Your task to perform on an android device: toggle pop-ups in chrome Image 0: 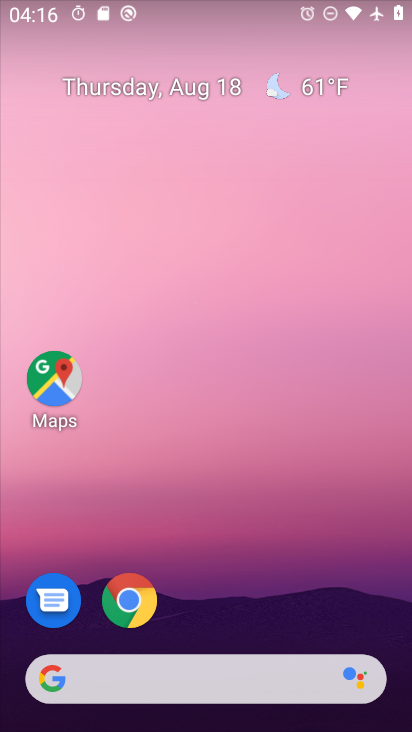
Step 0: click (140, 609)
Your task to perform on an android device: toggle pop-ups in chrome Image 1: 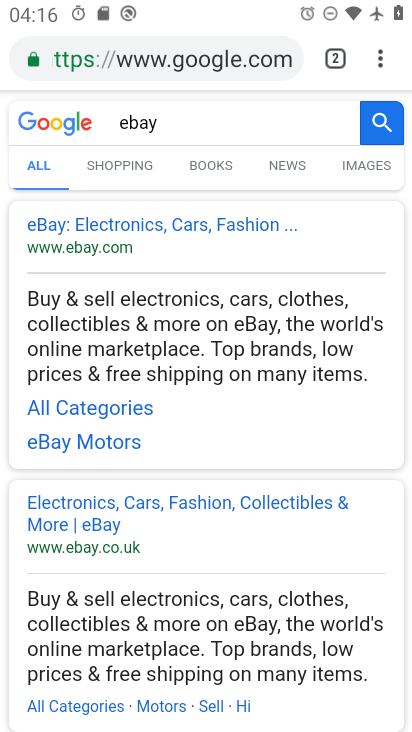
Step 1: drag from (380, 59) to (183, 653)
Your task to perform on an android device: toggle pop-ups in chrome Image 2: 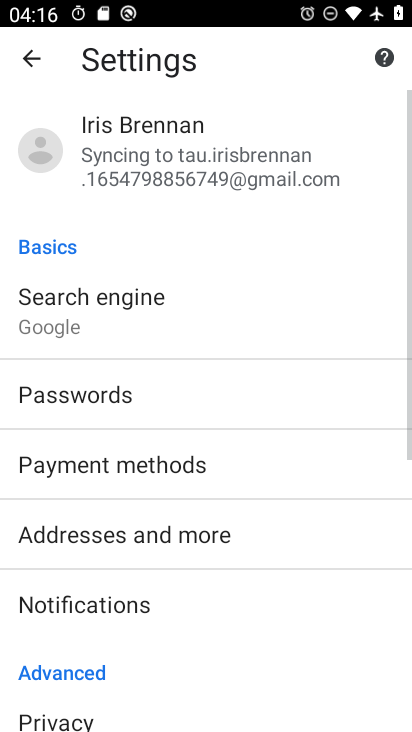
Step 2: drag from (228, 644) to (290, 110)
Your task to perform on an android device: toggle pop-ups in chrome Image 3: 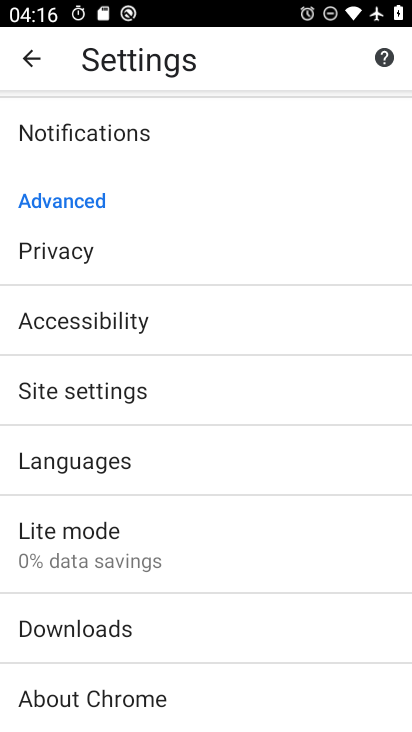
Step 3: click (78, 393)
Your task to perform on an android device: toggle pop-ups in chrome Image 4: 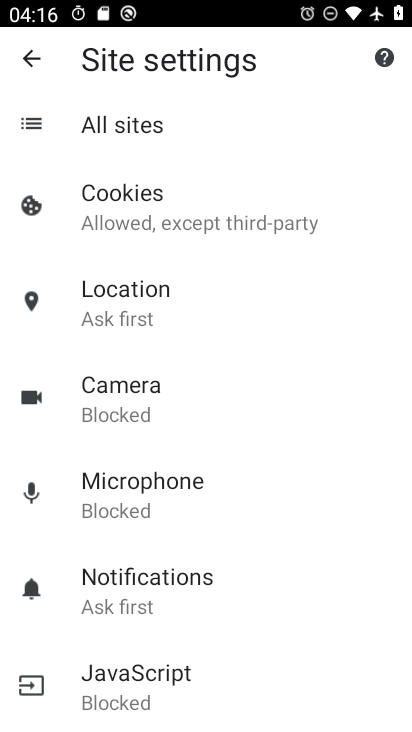
Step 4: drag from (326, 647) to (354, 71)
Your task to perform on an android device: toggle pop-ups in chrome Image 5: 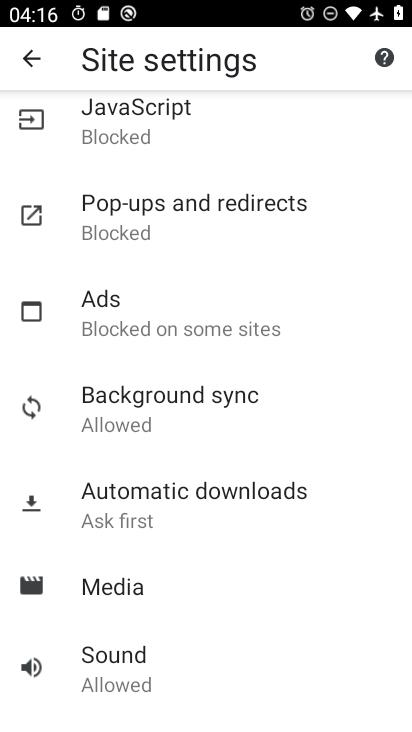
Step 5: click (156, 209)
Your task to perform on an android device: toggle pop-ups in chrome Image 6: 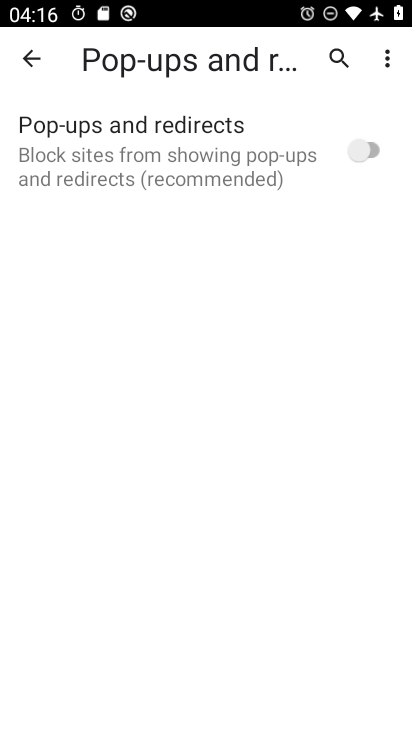
Step 6: click (369, 149)
Your task to perform on an android device: toggle pop-ups in chrome Image 7: 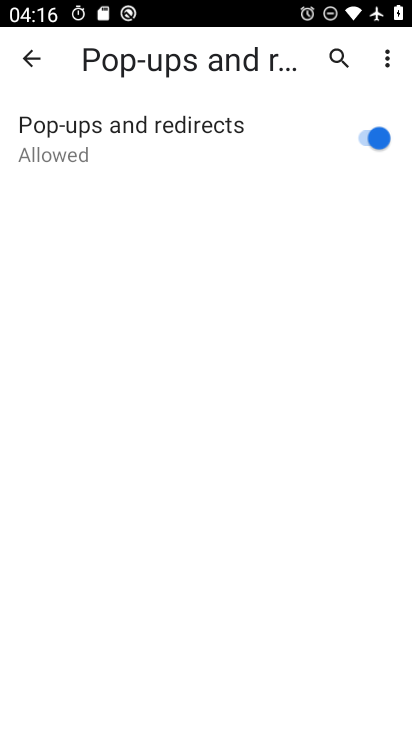
Step 7: task complete